Your task to perform on an android device: Go to Android settings Image 0: 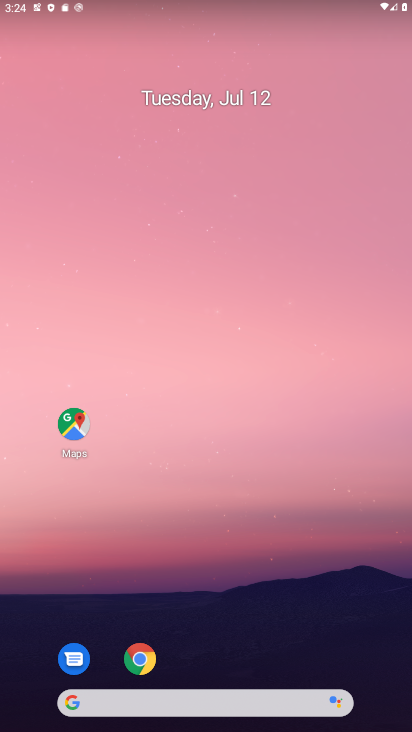
Step 0: drag from (235, 663) to (235, 196)
Your task to perform on an android device: Go to Android settings Image 1: 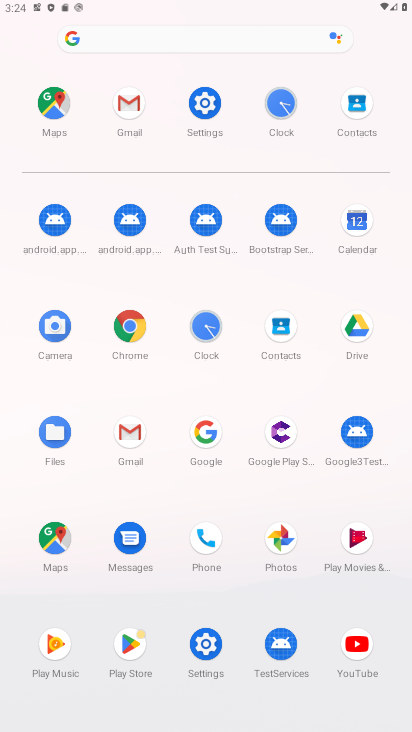
Step 1: click (202, 100)
Your task to perform on an android device: Go to Android settings Image 2: 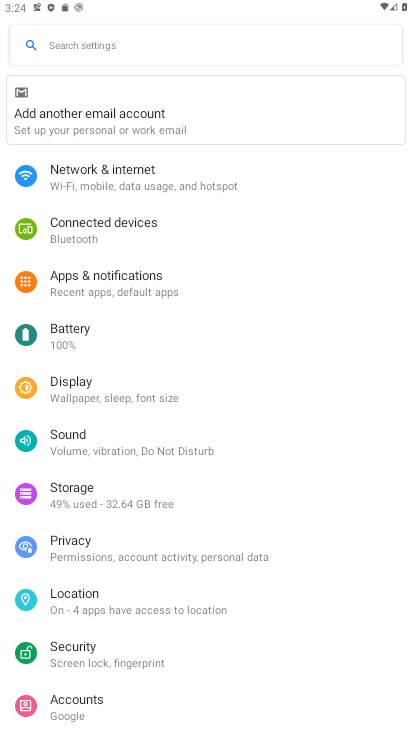
Step 2: task complete